Your task to perform on an android device: Go to battery settings Image 0: 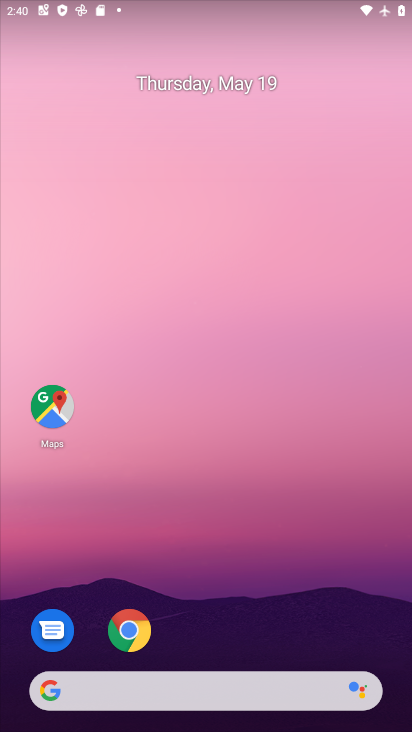
Step 0: drag from (396, 657) to (329, 79)
Your task to perform on an android device: Go to battery settings Image 1: 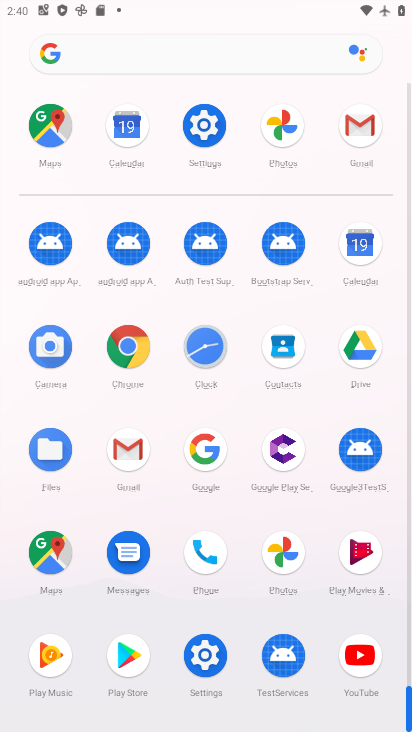
Step 1: click (204, 655)
Your task to perform on an android device: Go to battery settings Image 2: 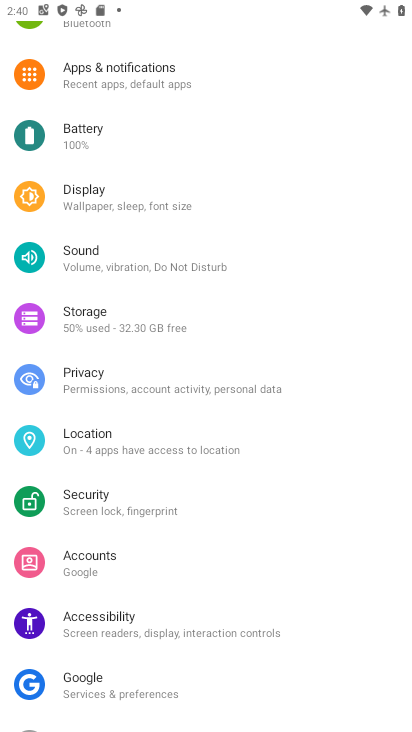
Step 2: click (79, 129)
Your task to perform on an android device: Go to battery settings Image 3: 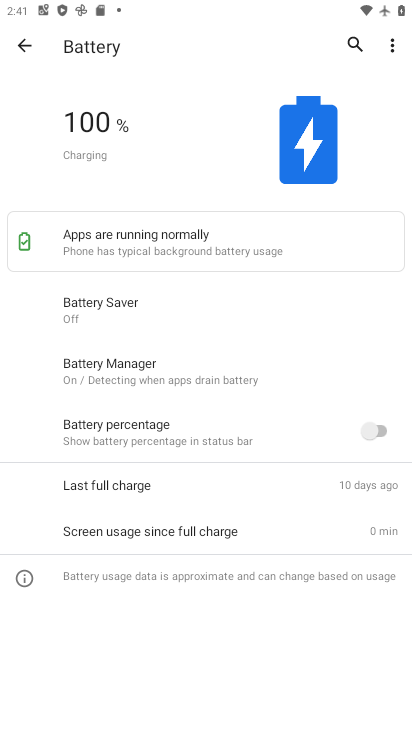
Step 3: task complete